Your task to perform on an android device: find photos in the google photos app Image 0: 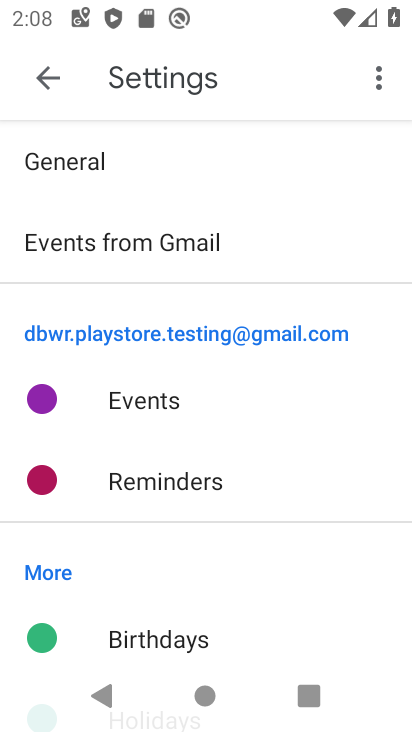
Step 0: press back button
Your task to perform on an android device: find photos in the google photos app Image 1: 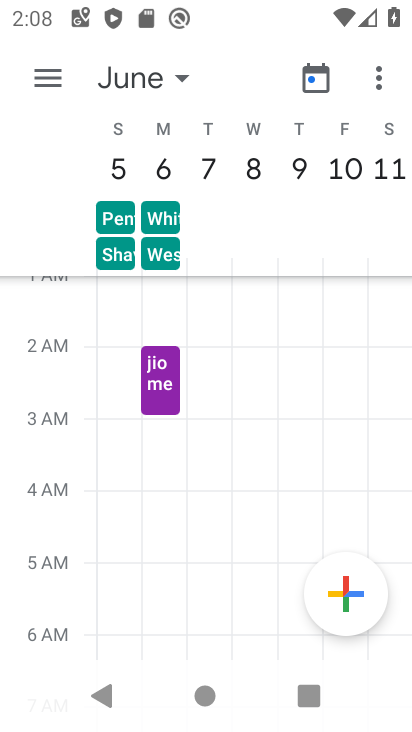
Step 1: press back button
Your task to perform on an android device: find photos in the google photos app Image 2: 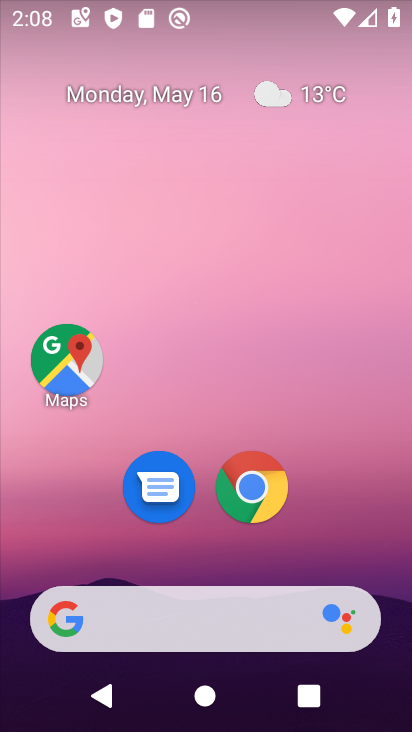
Step 2: drag from (370, 540) to (274, 27)
Your task to perform on an android device: find photos in the google photos app Image 3: 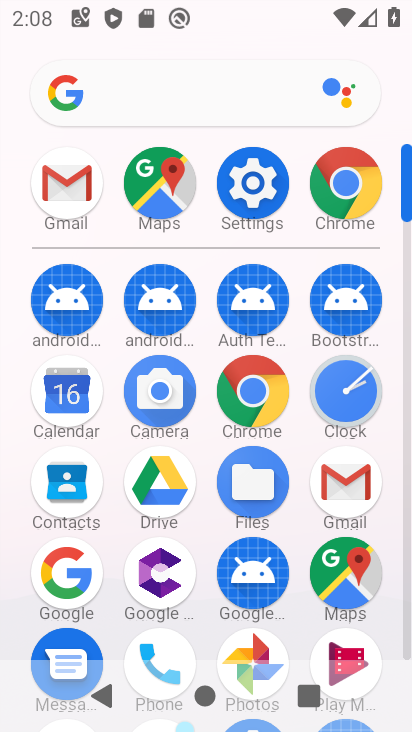
Step 3: drag from (8, 495) to (34, 222)
Your task to perform on an android device: find photos in the google photos app Image 4: 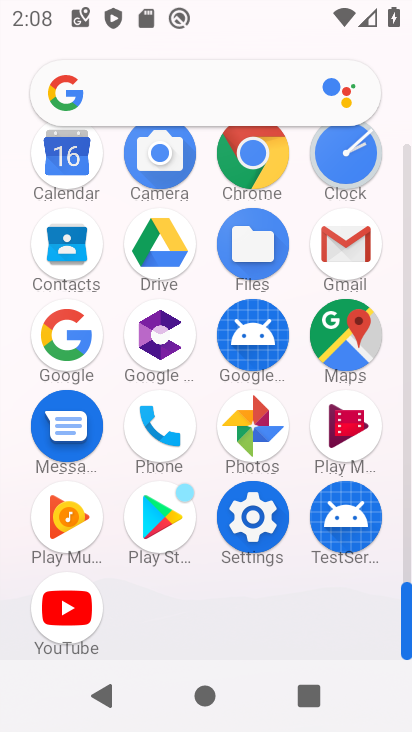
Step 4: click (254, 417)
Your task to perform on an android device: find photos in the google photos app Image 5: 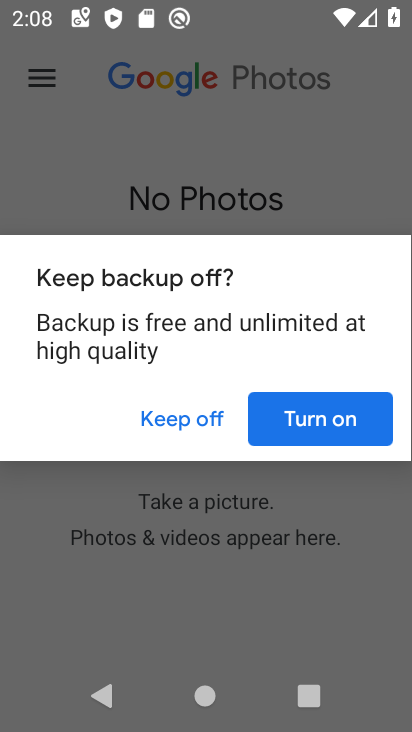
Step 5: press back button
Your task to perform on an android device: find photos in the google photos app Image 6: 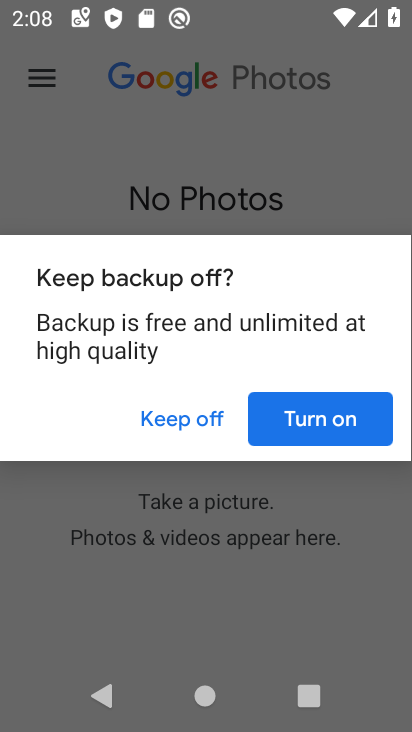
Step 6: click (340, 418)
Your task to perform on an android device: find photos in the google photos app Image 7: 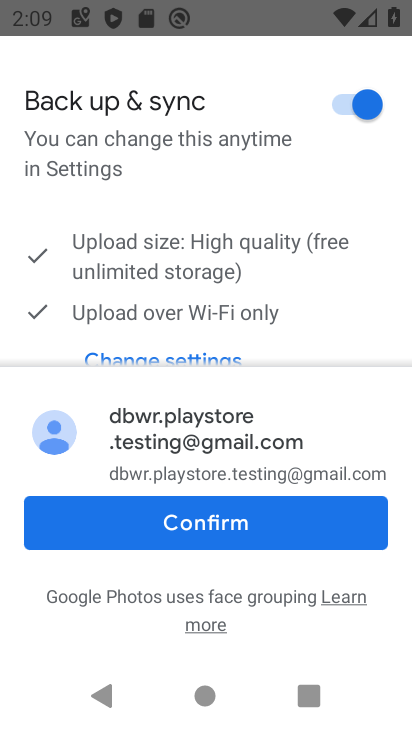
Step 7: click (295, 523)
Your task to perform on an android device: find photos in the google photos app Image 8: 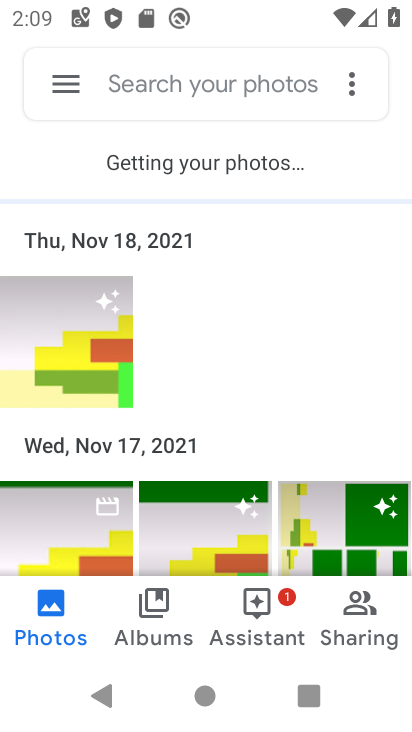
Step 8: task complete